Your task to perform on an android device: Go to internet settings Image 0: 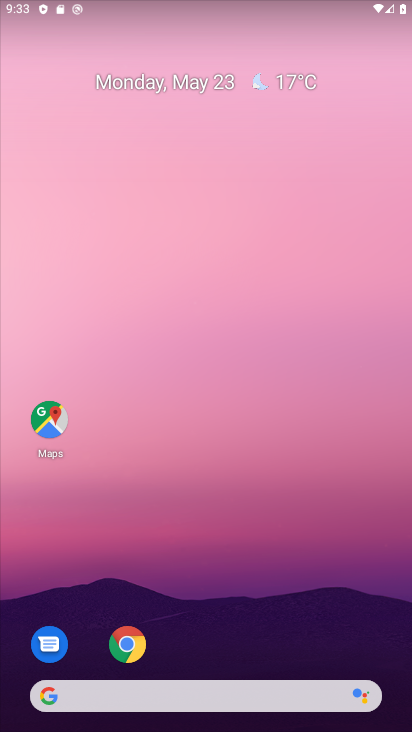
Step 0: drag from (227, 638) to (296, 286)
Your task to perform on an android device: Go to internet settings Image 1: 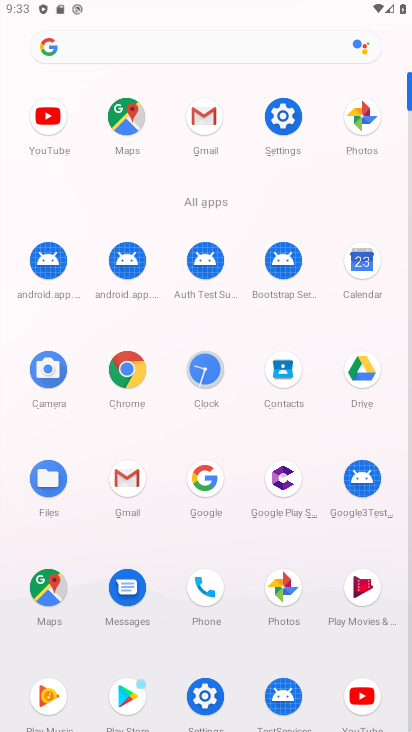
Step 1: click (281, 119)
Your task to perform on an android device: Go to internet settings Image 2: 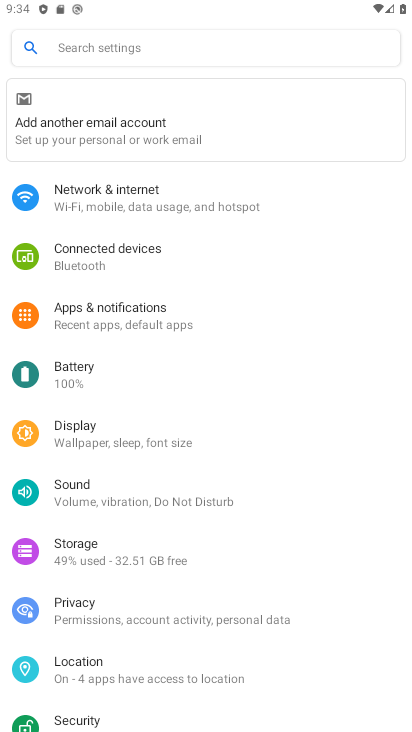
Step 2: click (112, 197)
Your task to perform on an android device: Go to internet settings Image 3: 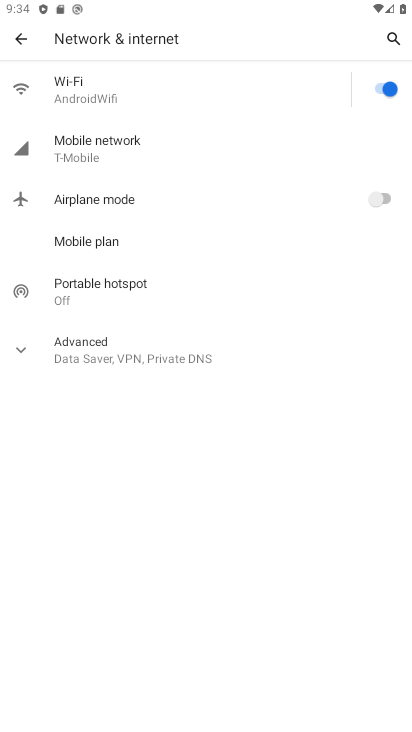
Step 3: click (102, 139)
Your task to perform on an android device: Go to internet settings Image 4: 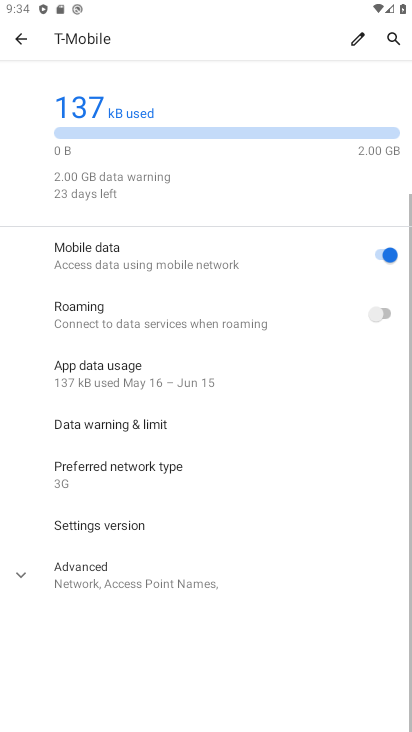
Step 4: task complete